Your task to perform on an android device: change text size in settings app Image 0: 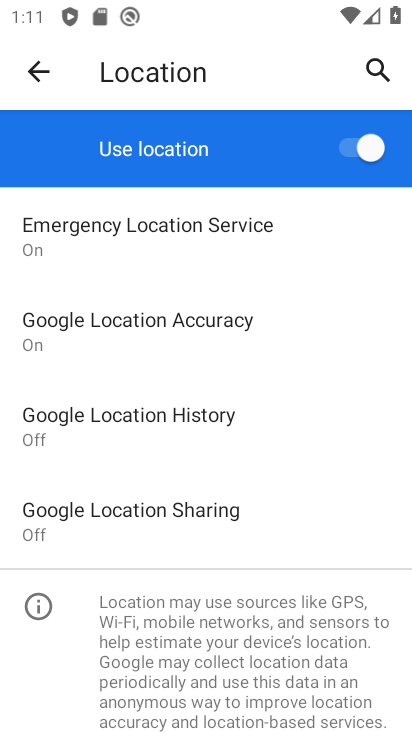
Step 0: press back button
Your task to perform on an android device: change text size in settings app Image 1: 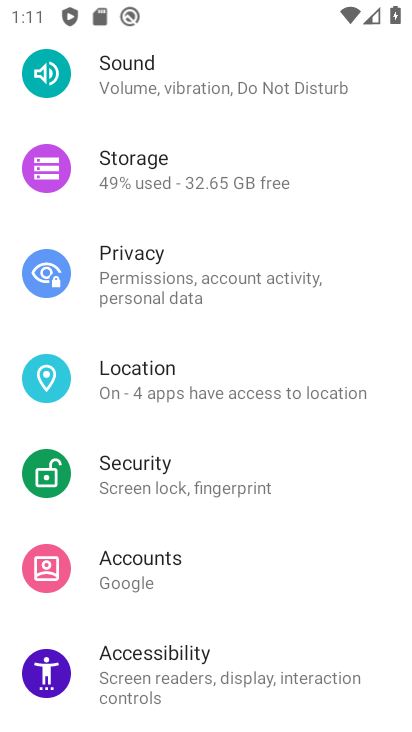
Step 1: press back button
Your task to perform on an android device: change text size in settings app Image 2: 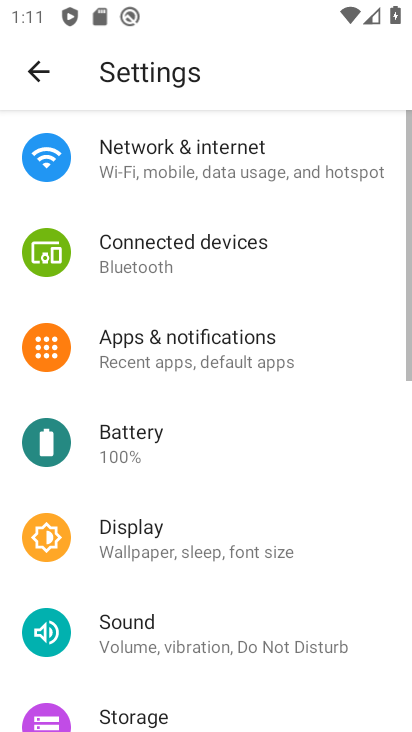
Step 2: press back button
Your task to perform on an android device: change text size in settings app Image 3: 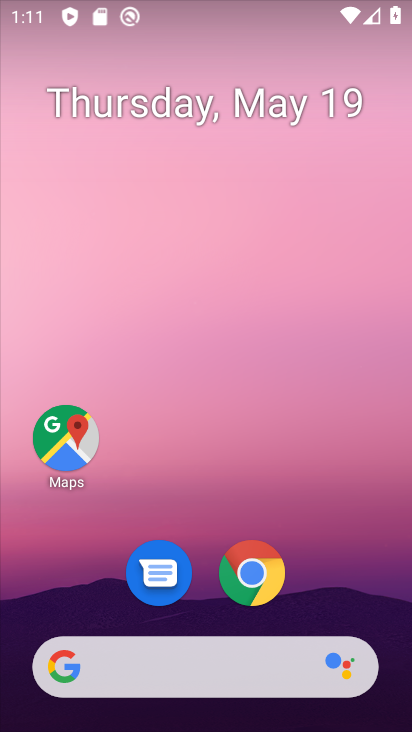
Step 3: drag from (311, 517) to (197, 48)
Your task to perform on an android device: change text size in settings app Image 4: 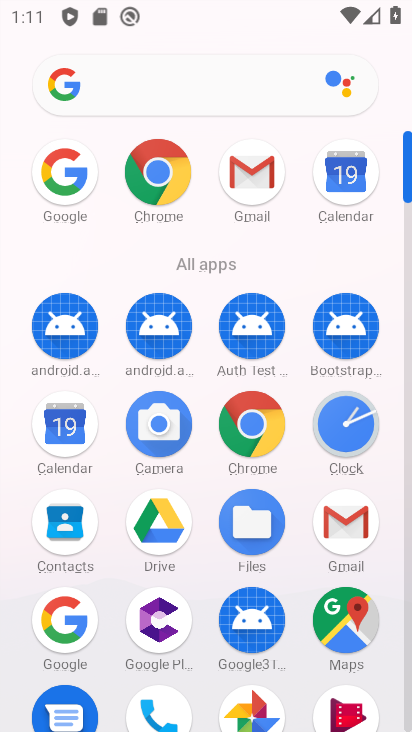
Step 4: drag from (8, 567) to (10, 252)
Your task to perform on an android device: change text size in settings app Image 5: 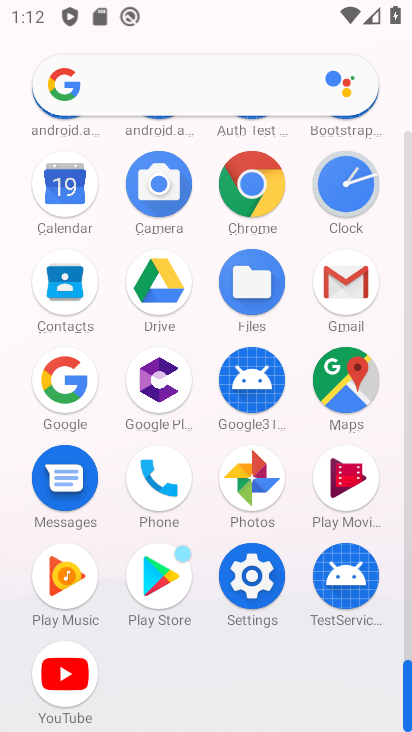
Step 5: click (246, 574)
Your task to perform on an android device: change text size in settings app Image 6: 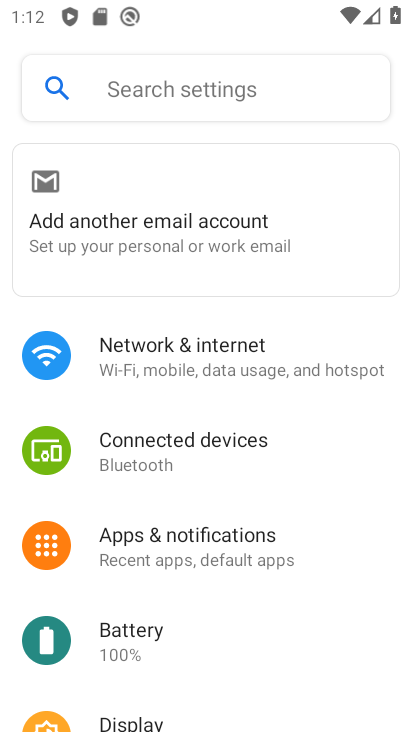
Step 6: drag from (289, 597) to (280, 392)
Your task to perform on an android device: change text size in settings app Image 7: 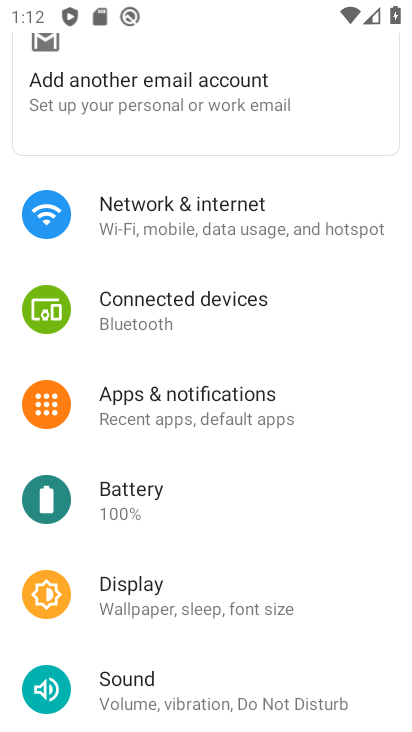
Step 7: click (214, 583)
Your task to perform on an android device: change text size in settings app Image 8: 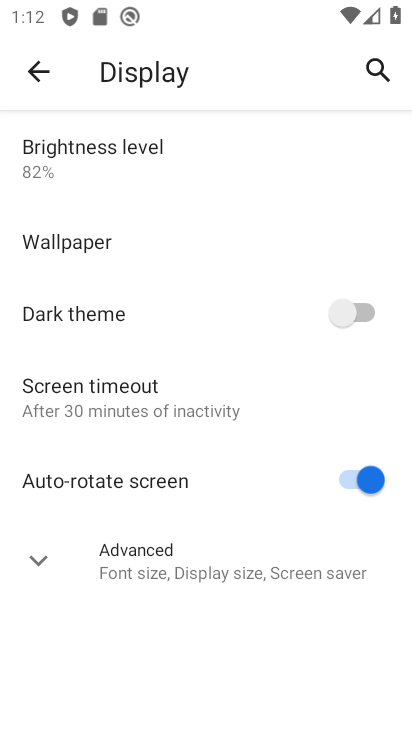
Step 8: click (204, 556)
Your task to perform on an android device: change text size in settings app Image 9: 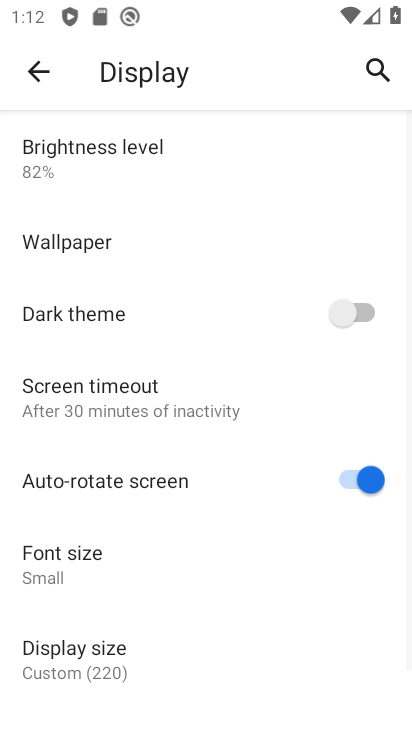
Step 9: click (149, 571)
Your task to perform on an android device: change text size in settings app Image 10: 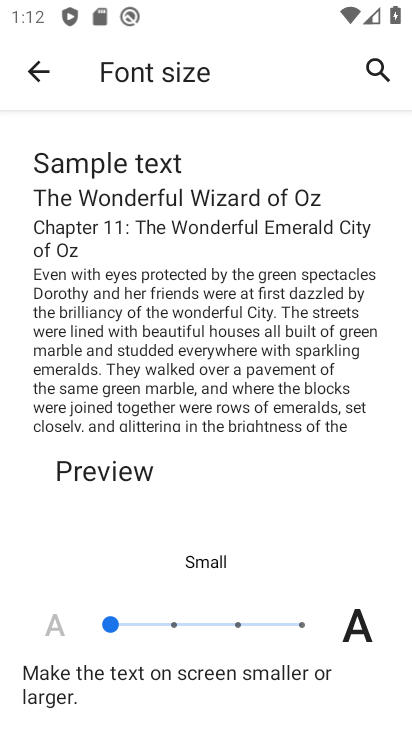
Step 10: click (288, 624)
Your task to perform on an android device: change text size in settings app Image 11: 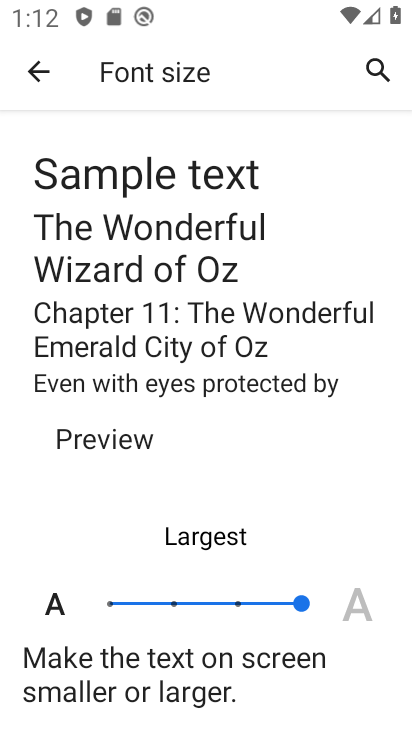
Step 11: task complete